Your task to perform on an android device: add a contact Image 0: 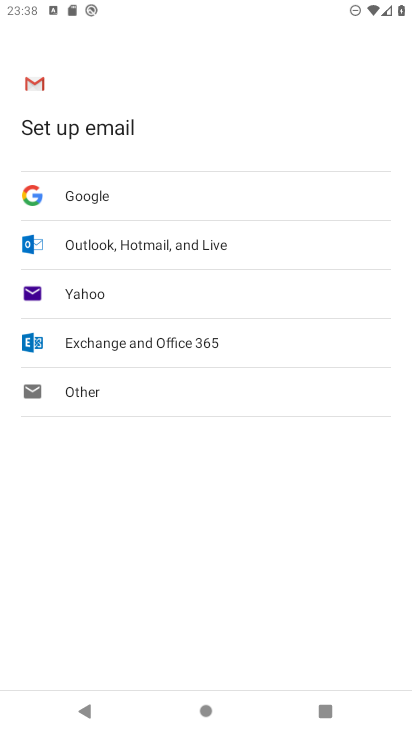
Step 0: press home button
Your task to perform on an android device: add a contact Image 1: 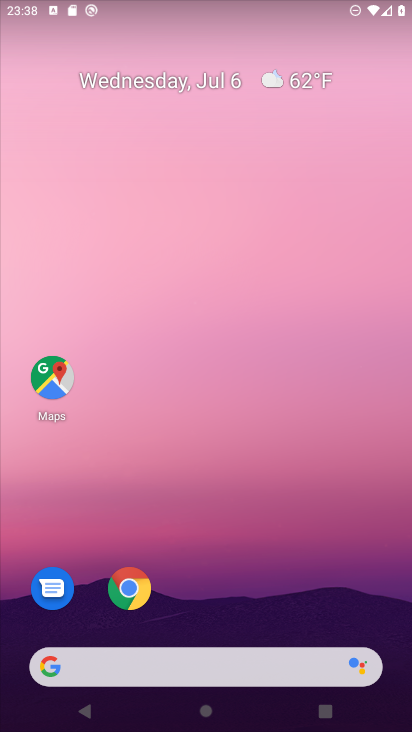
Step 1: drag from (377, 619) to (347, 152)
Your task to perform on an android device: add a contact Image 2: 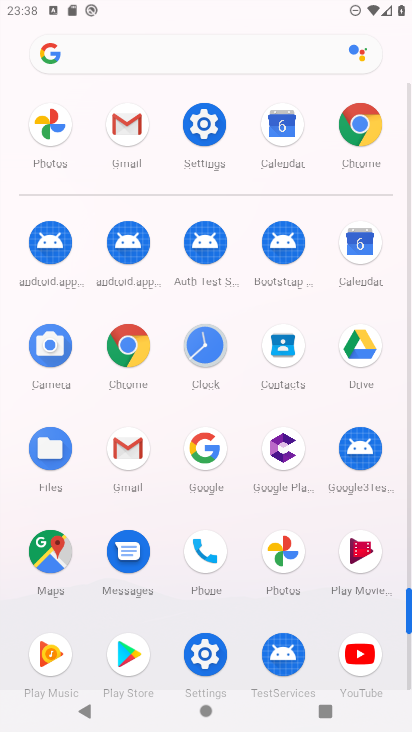
Step 2: click (282, 350)
Your task to perform on an android device: add a contact Image 3: 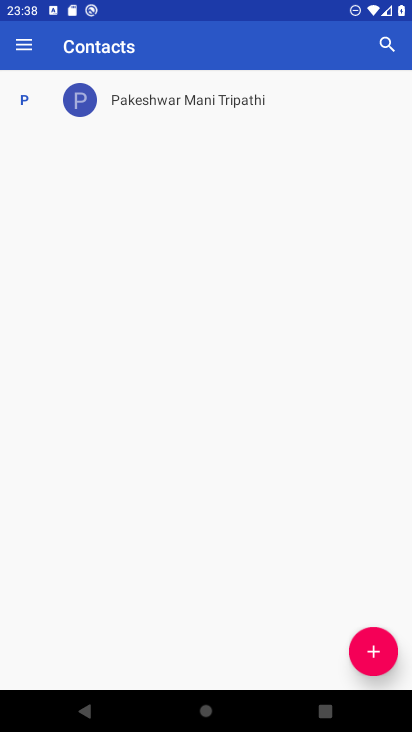
Step 3: click (366, 649)
Your task to perform on an android device: add a contact Image 4: 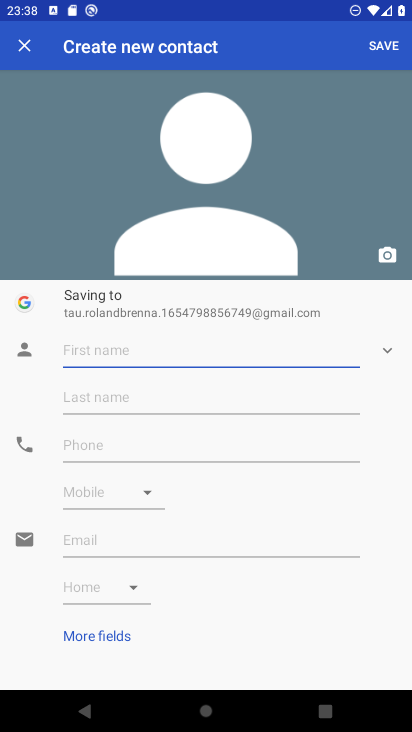
Step 4: type "jhdhhhd"
Your task to perform on an android device: add a contact Image 5: 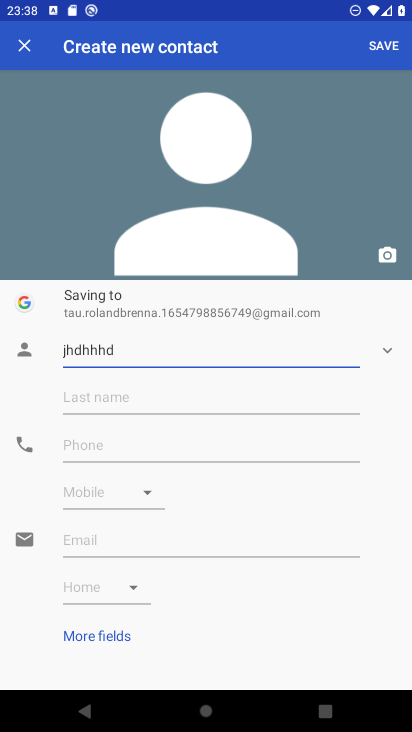
Step 5: click (82, 446)
Your task to perform on an android device: add a contact Image 6: 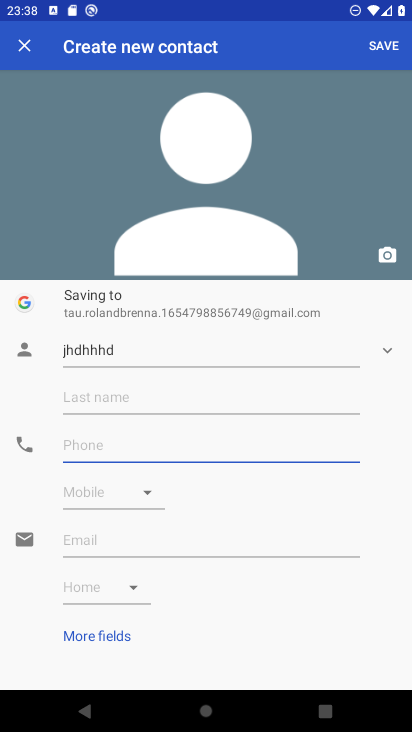
Step 6: type "68756348"
Your task to perform on an android device: add a contact Image 7: 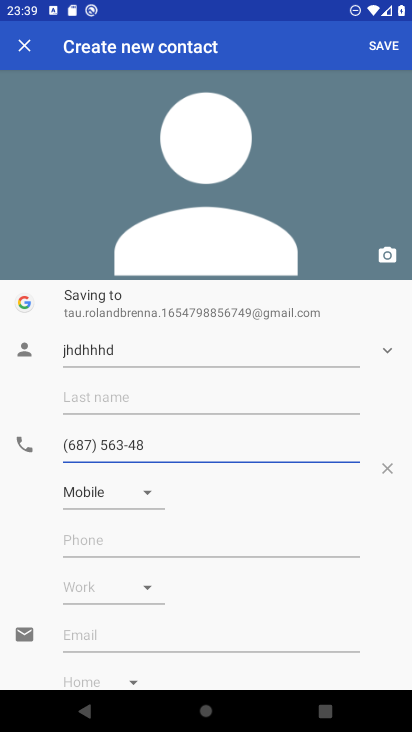
Step 7: click (151, 493)
Your task to perform on an android device: add a contact Image 8: 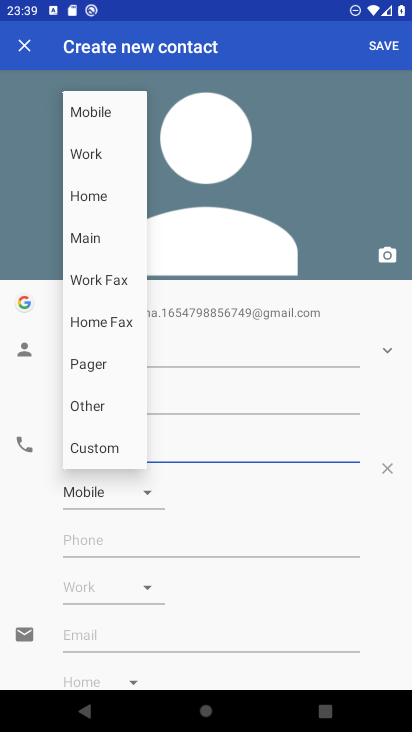
Step 8: click (87, 150)
Your task to perform on an android device: add a contact Image 9: 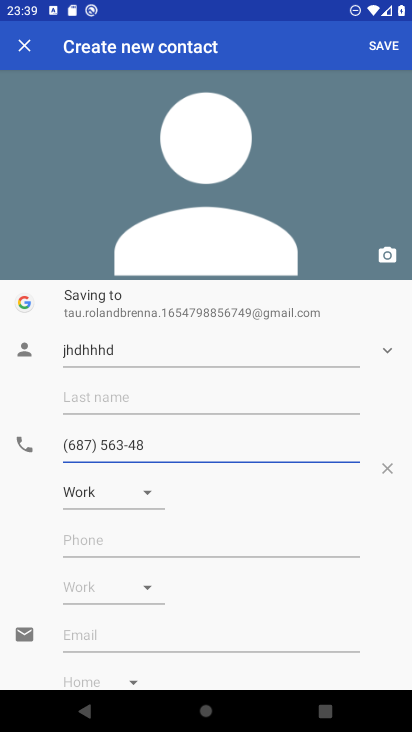
Step 9: click (378, 44)
Your task to perform on an android device: add a contact Image 10: 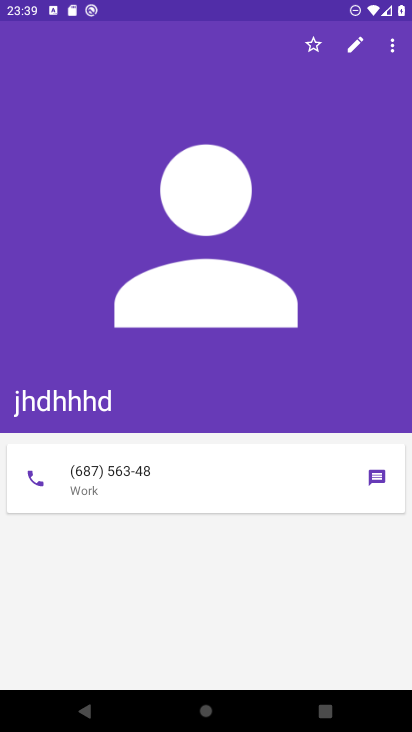
Step 10: task complete